Your task to perform on an android device: What's on the menu at Taco Bell? Image 0: 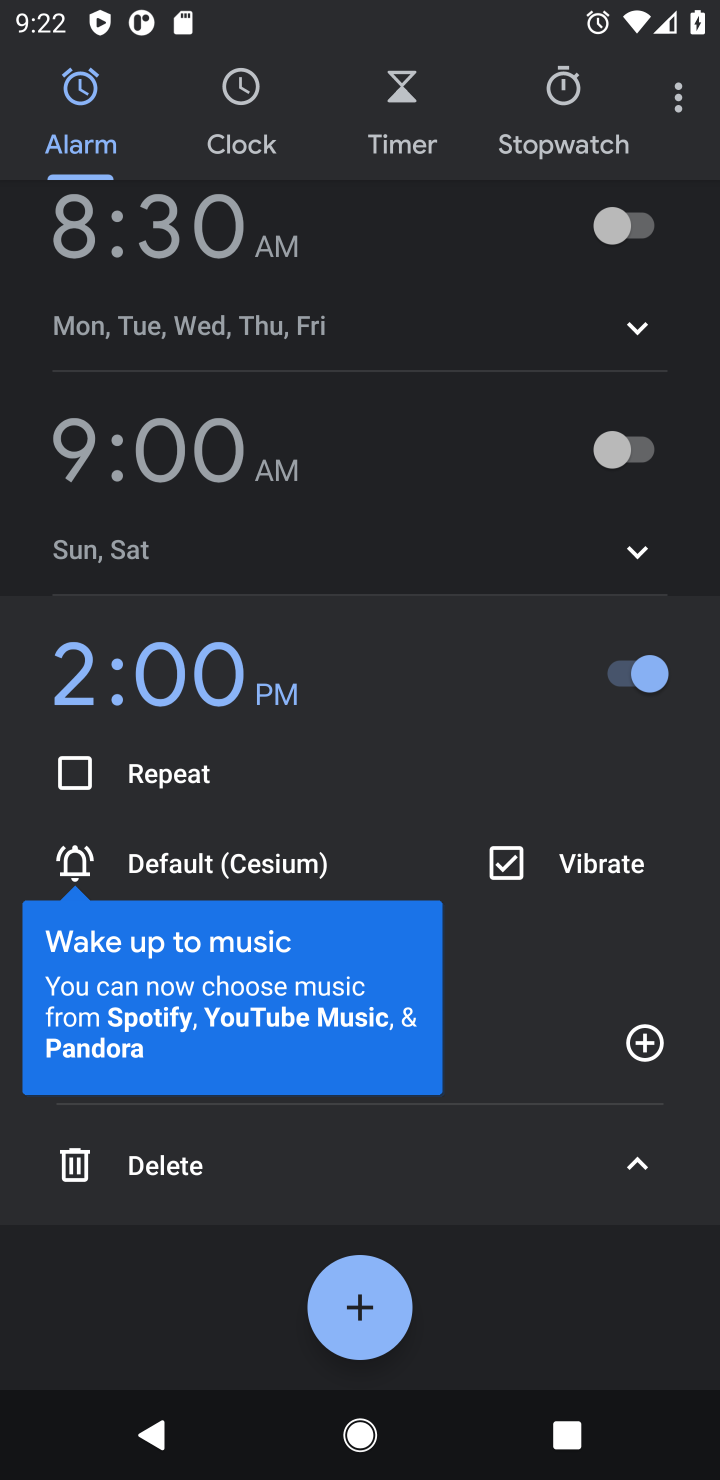
Step 0: press home button
Your task to perform on an android device: What's on the menu at Taco Bell? Image 1: 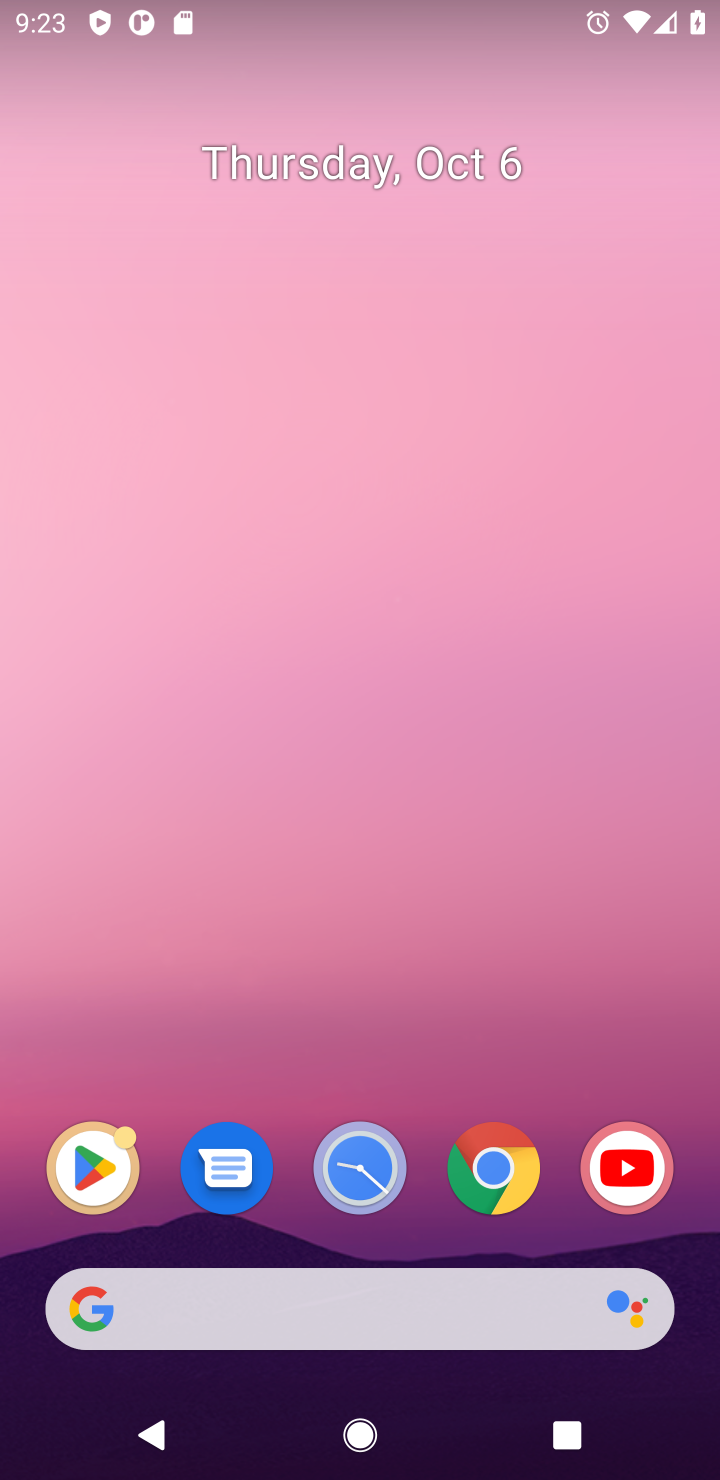
Step 1: click (324, 1298)
Your task to perform on an android device: What's on the menu at Taco Bell? Image 2: 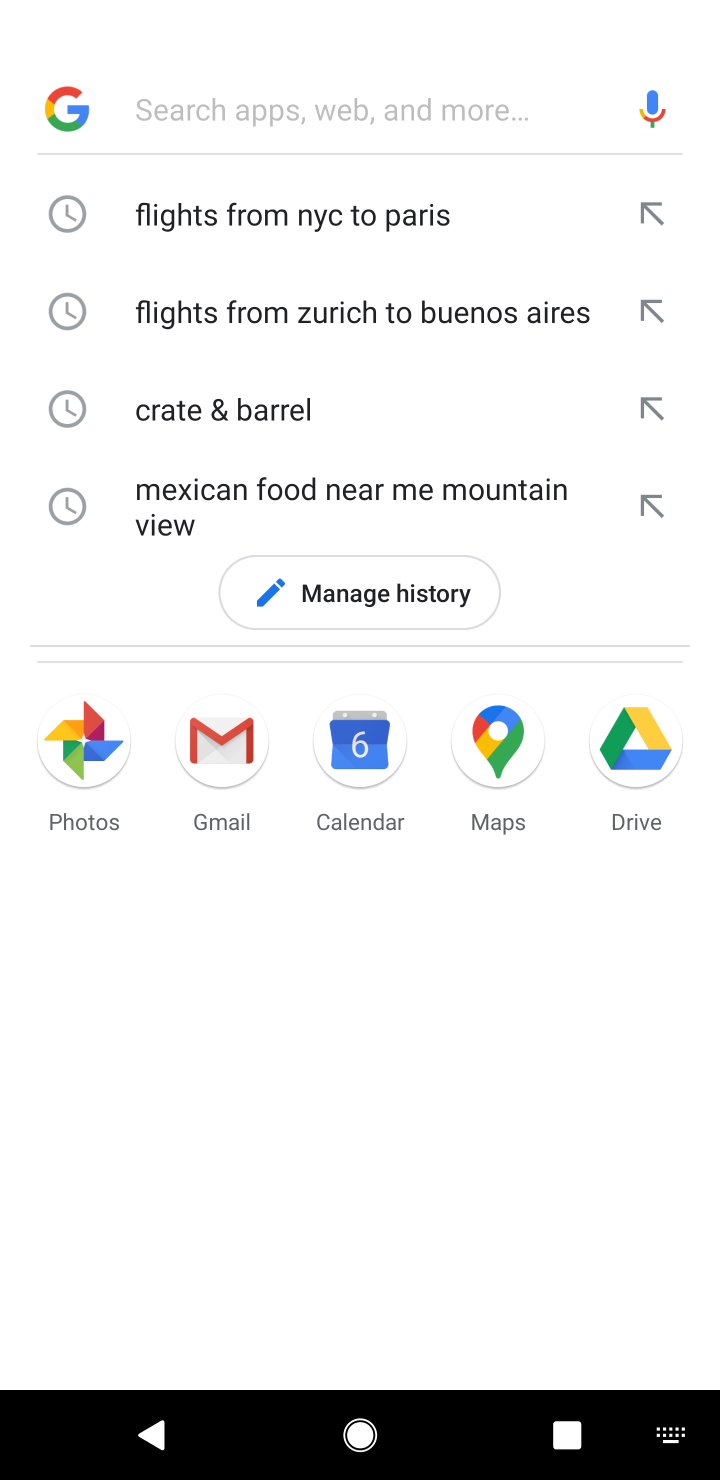
Step 2: type "What's on the menu at Taco Bell?"
Your task to perform on an android device: What's on the menu at Taco Bell? Image 3: 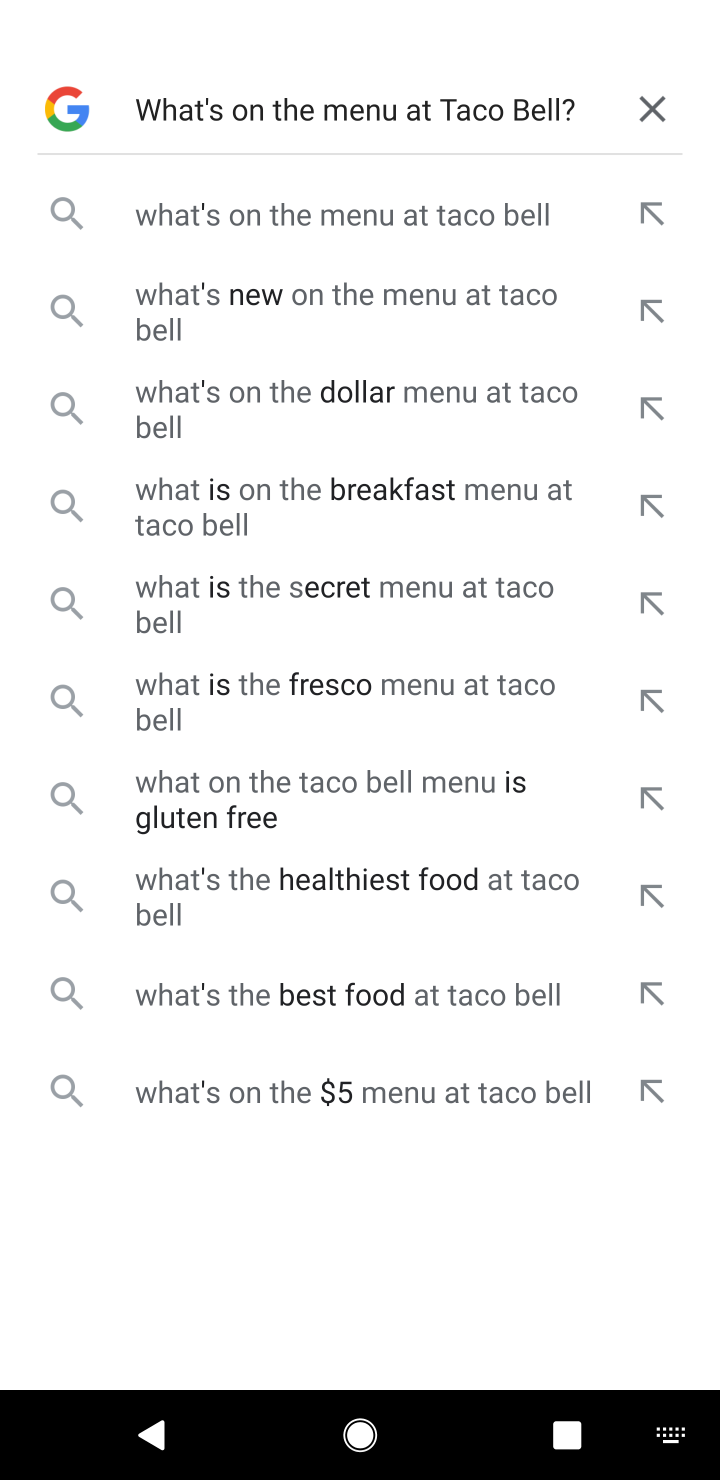
Step 3: click (457, 219)
Your task to perform on an android device: What's on the menu at Taco Bell? Image 4: 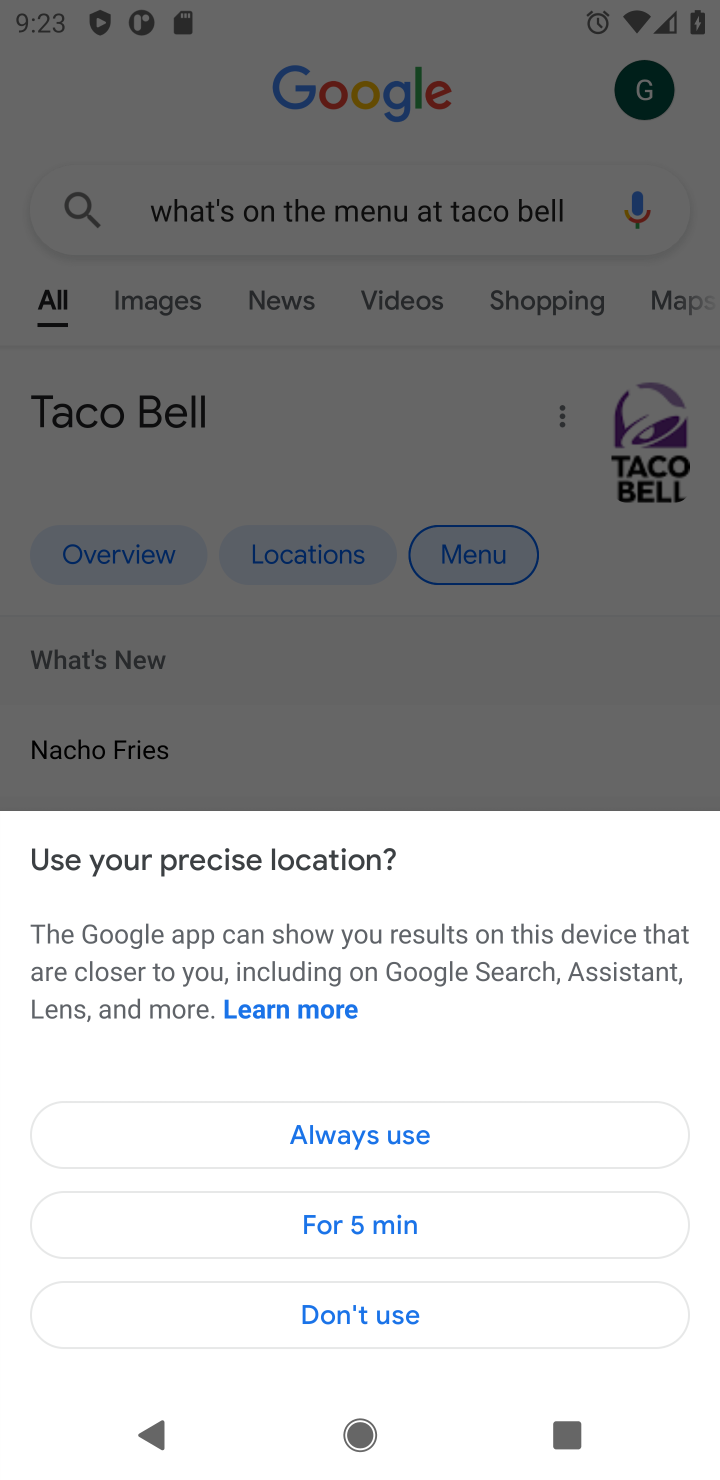
Step 4: click (349, 1128)
Your task to perform on an android device: What's on the menu at Taco Bell? Image 5: 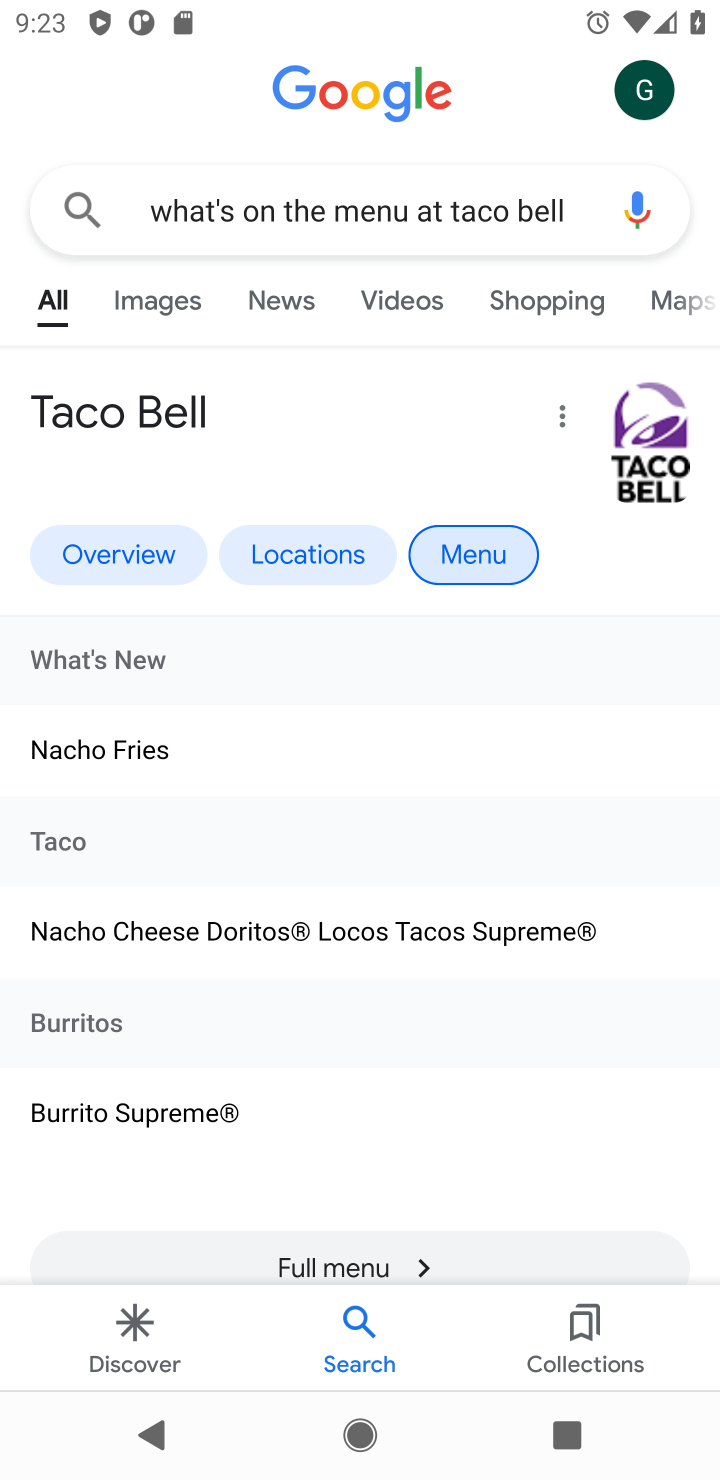
Step 5: task complete